Your task to perform on an android device: change the upload size in google photos Image 0: 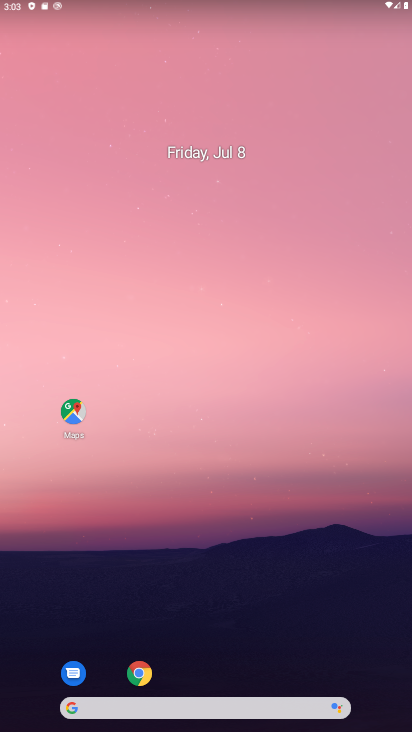
Step 0: drag from (256, 707) to (210, 234)
Your task to perform on an android device: change the upload size in google photos Image 1: 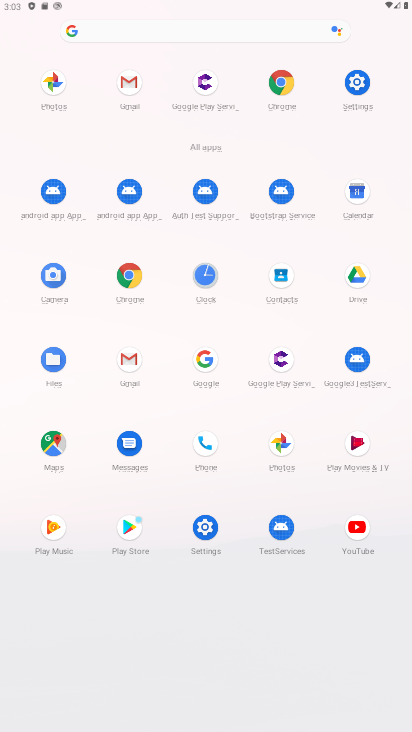
Step 1: click (286, 450)
Your task to perform on an android device: change the upload size in google photos Image 2: 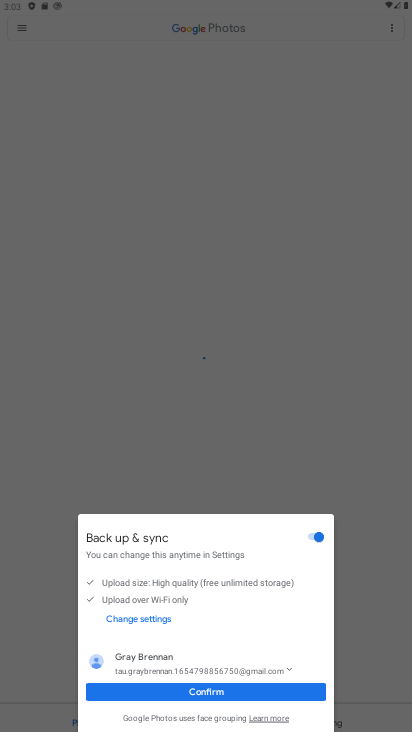
Step 2: click (202, 689)
Your task to perform on an android device: change the upload size in google photos Image 3: 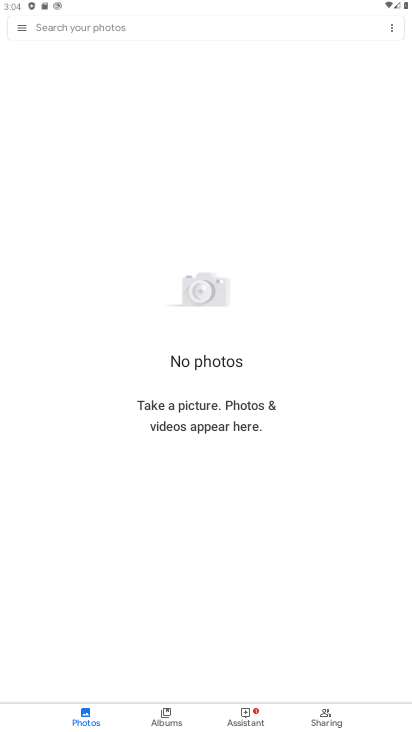
Step 3: click (22, 26)
Your task to perform on an android device: change the upload size in google photos Image 4: 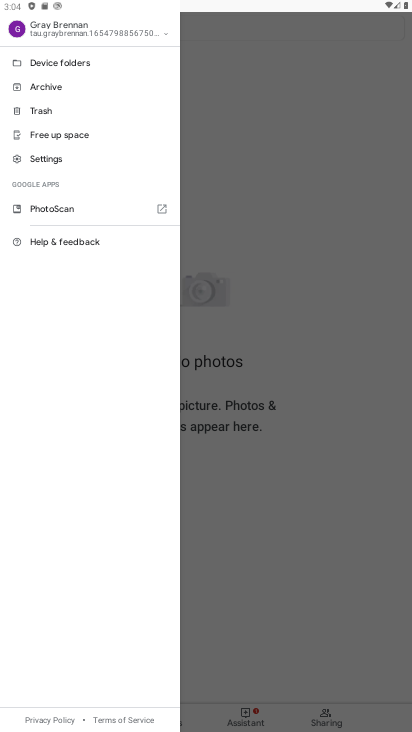
Step 4: click (56, 161)
Your task to perform on an android device: change the upload size in google photos Image 5: 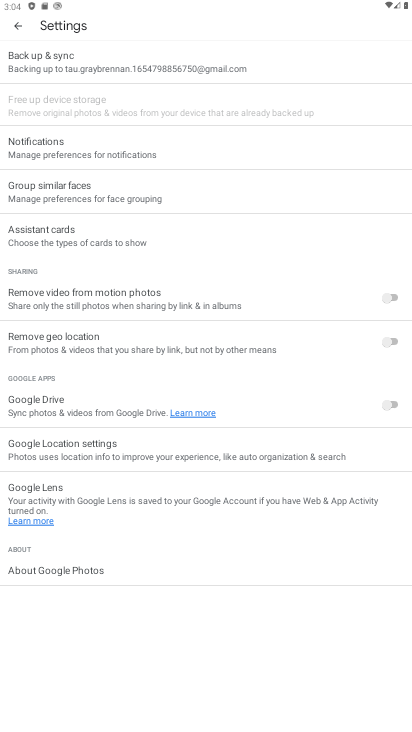
Step 5: click (73, 62)
Your task to perform on an android device: change the upload size in google photos Image 6: 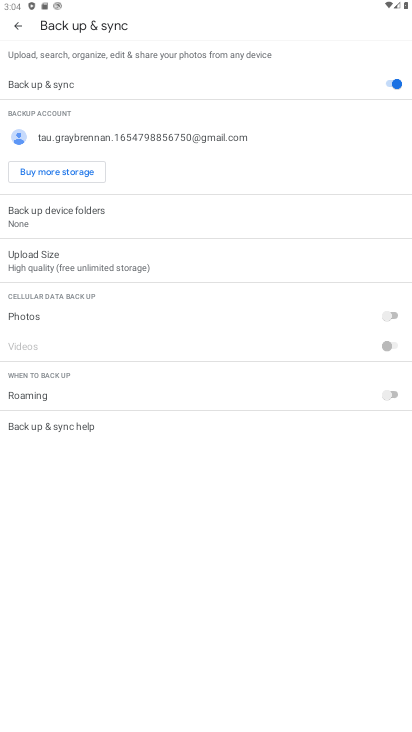
Step 6: click (84, 258)
Your task to perform on an android device: change the upload size in google photos Image 7: 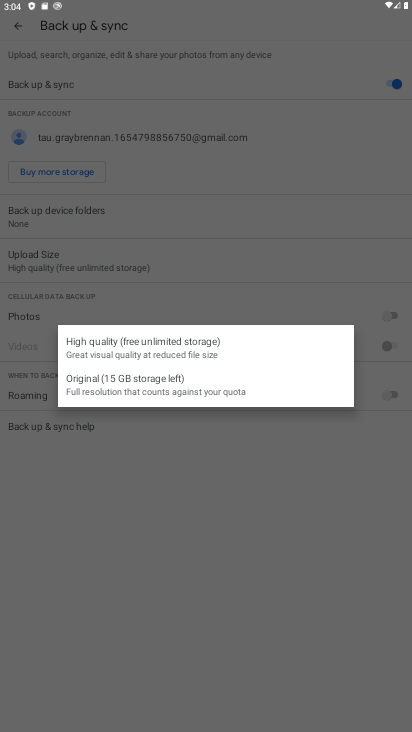
Step 7: click (156, 382)
Your task to perform on an android device: change the upload size in google photos Image 8: 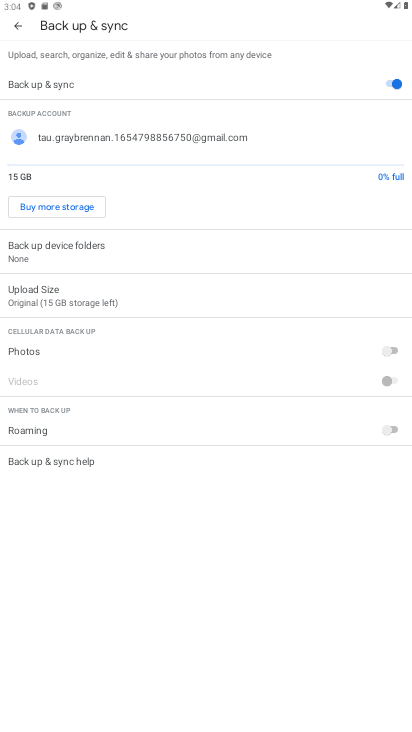
Step 8: task complete